Your task to perform on an android device: Open Google Maps and go to "Timeline" Image 0: 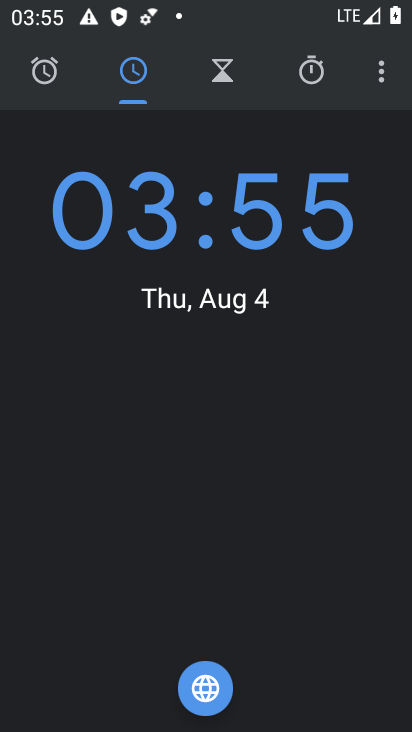
Step 0: click (166, 208)
Your task to perform on an android device: Open Google Maps and go to "Timeline" Image 1: 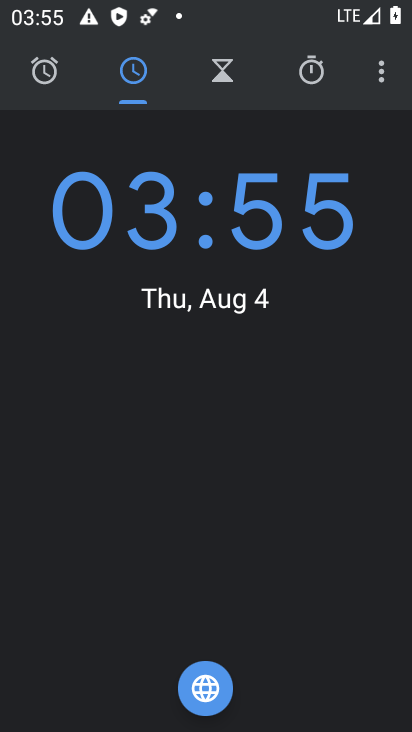
Step 1: press back button
Your task to perform on an android device: Open Google Maps and go to "Timeline" Image 2: 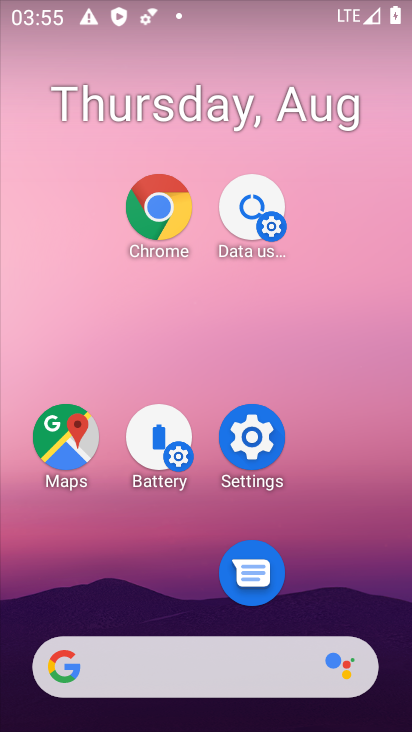
Step 2: click (55, 451)
Your task to perform on an android device: Open Google Maps and go to "Timeline" Image 3: 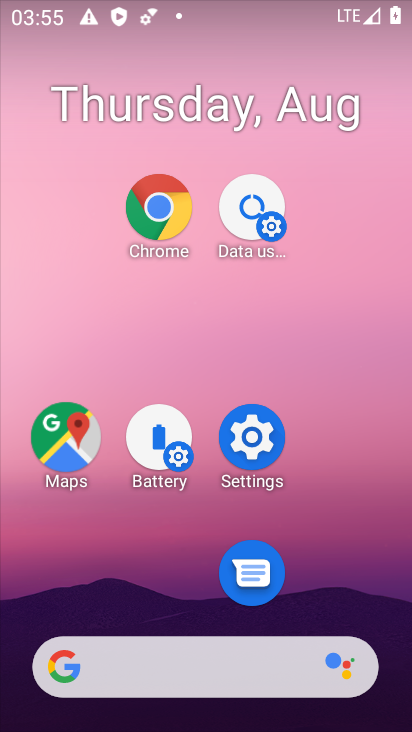
Step 3: click (57, 447)
Your task to perform on an android device: Open Google Maps and go to "Timeline" Image 4: 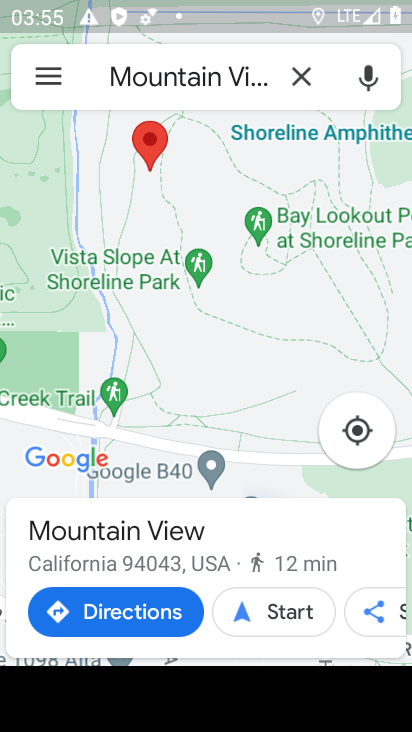
Step 4: click (39, 70)
Your task to perform on an android device: Open Google Maps and go to "Timeline" Image 5: 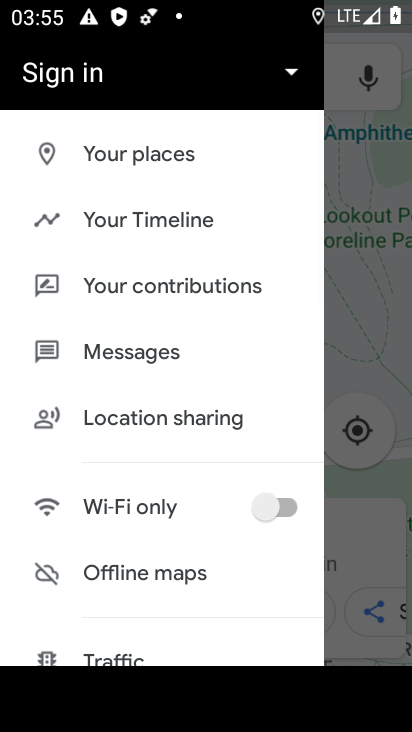
Step 5: click (134, 211)
Your task to perform on an android device: Open Google Maps and go to "Timeline" Image 6: 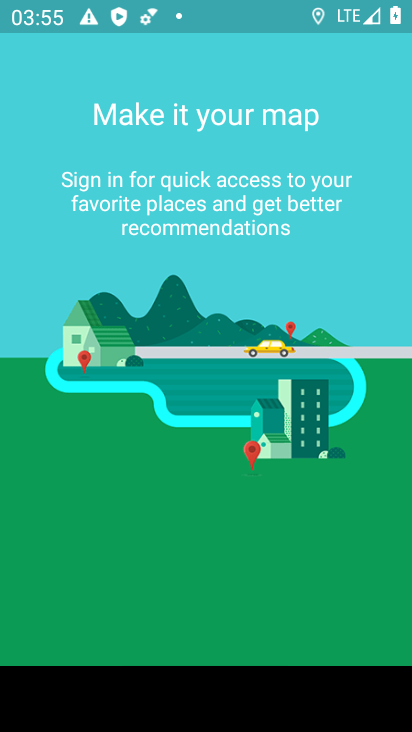
Step 6: task complete